Your task to perform on an android device: Search for sushi restaurants on Maps Image 0: 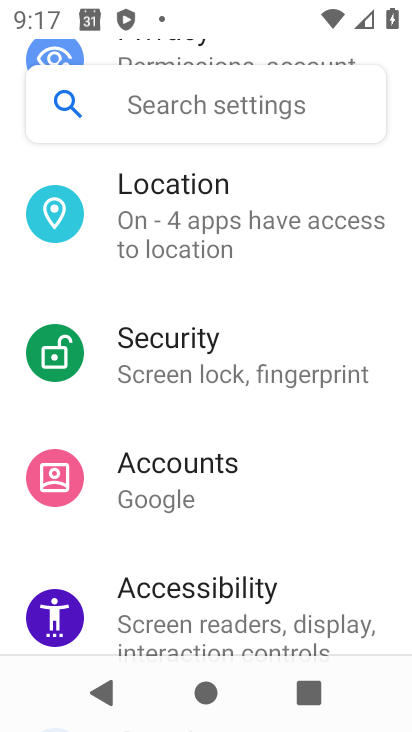
Step 0: press home button
Your task to perform on an android device: Search for sushi restaurants on Maps Image 1: 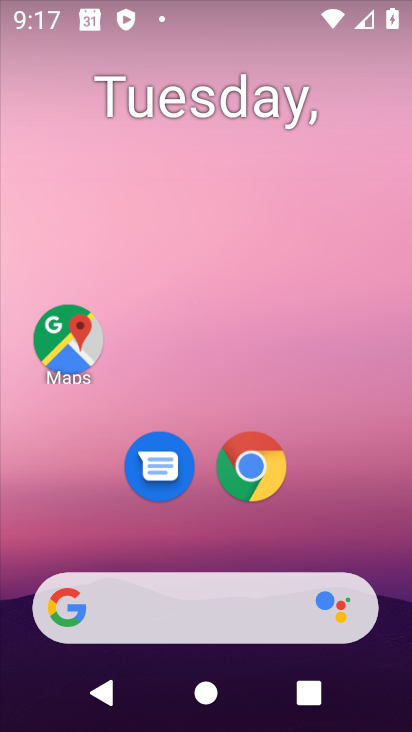
Step 1: click (70, 338)
Your task to perform on an android device: Search for sushi restaurants on Maps Image 2: 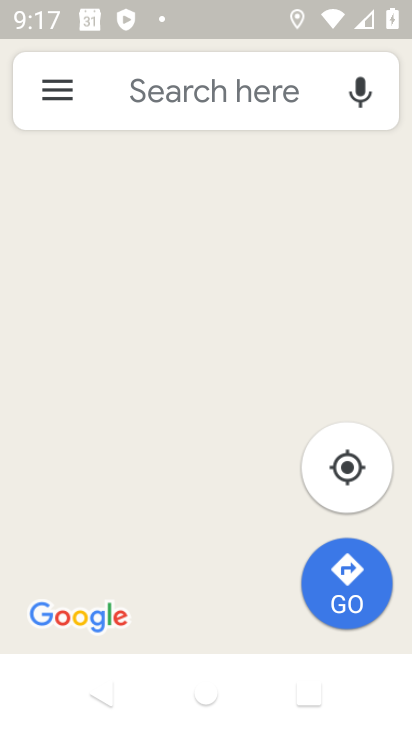
Step 2: click (258, 97)
Your task to perform on an android device: Search for sushi restaurants on Maps Image 3: 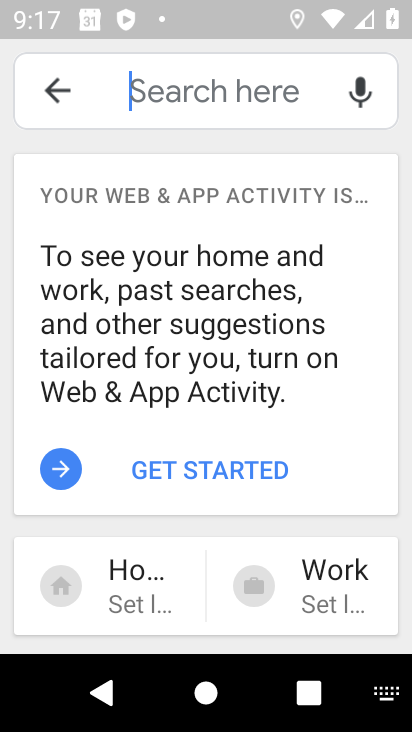
Step 3: type "sushi restaurants"
Your task to perform on an android device: Search for sushi restaurants on Maps Image 4: 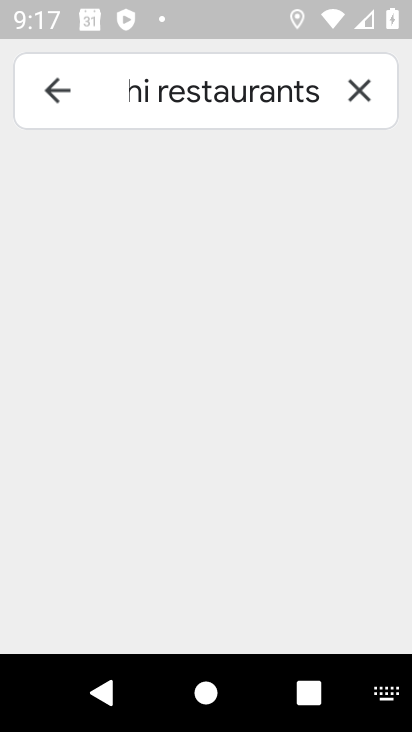
Step 4: press enter
Your task to perform on an android device: Search for sushi restaurants on Maps Image 5: 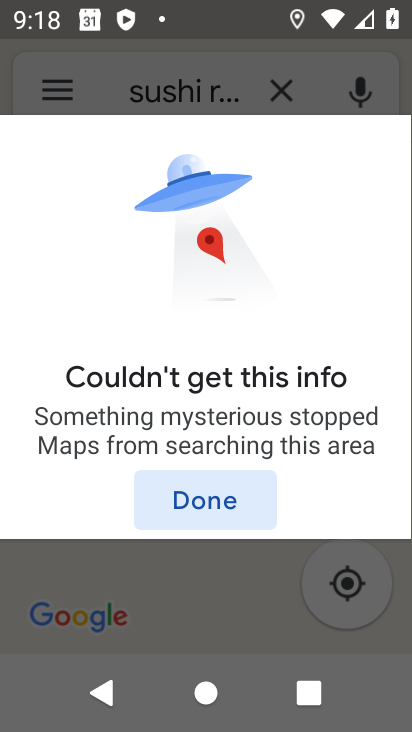
Step 5: task complete